Your task to perform on an android device: open a bookmark in the chrome app Image 0: 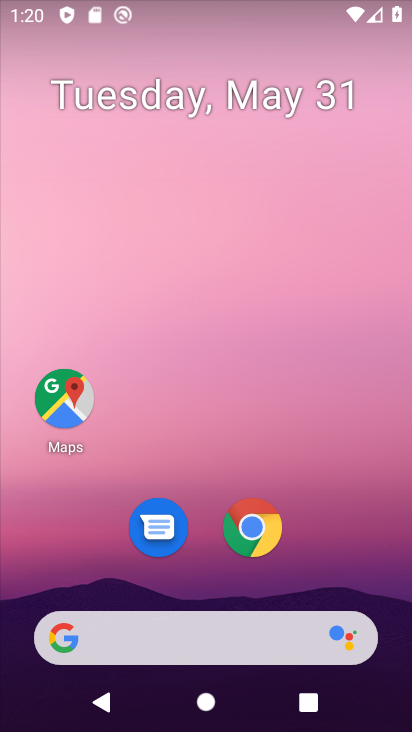
Step 0: drag from (367, 465) to (361, 0)
Your task to perform on an android device: open a bookmark in the chrome app Image 1: 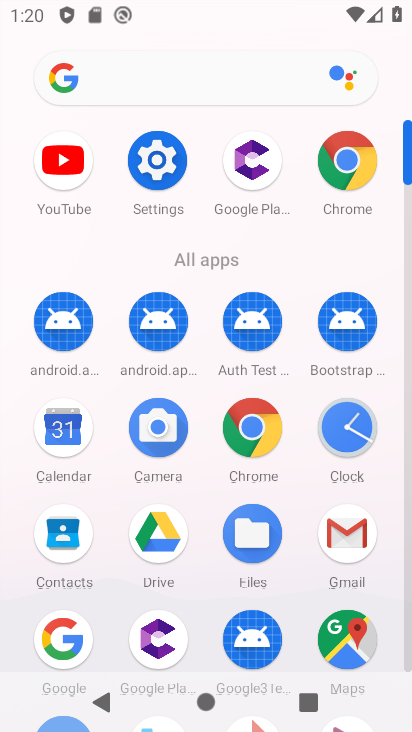
Step 1: click (346, 166)
Your task to perform on an android device: open a bookmark in the chrome app Image 2: 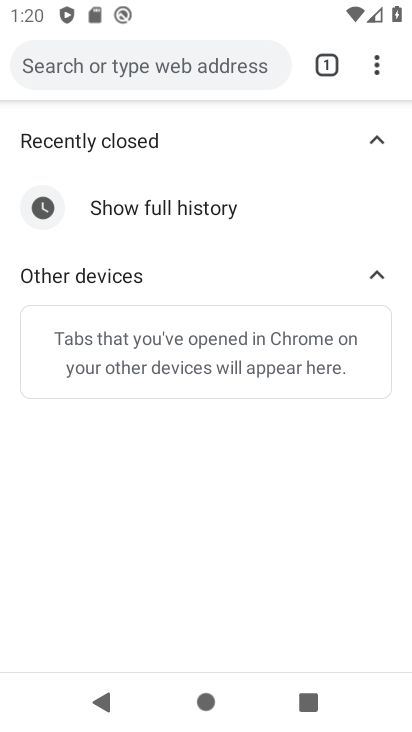
Step 2: task complete